Your task to perform on an android device: Search for vegetarian restaurants on Maps Image 0: 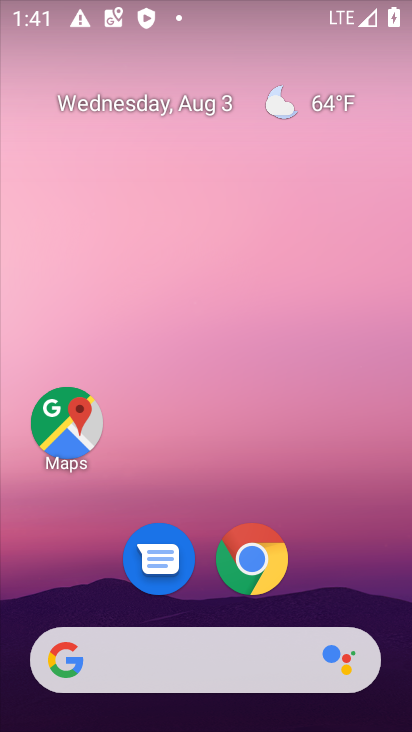
Step 0: drag from (202, 510) to (198, 20)
Your task to perform on an android device: Search for vegetarian restaurants on Maps Image 1: 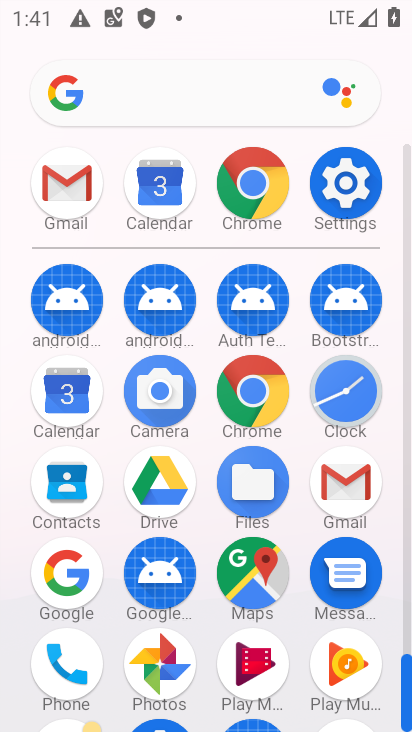
Step 1: click (250, 579)
Your task to perform on an android device: Search for vegetarian restaurants on Maps Image 2: 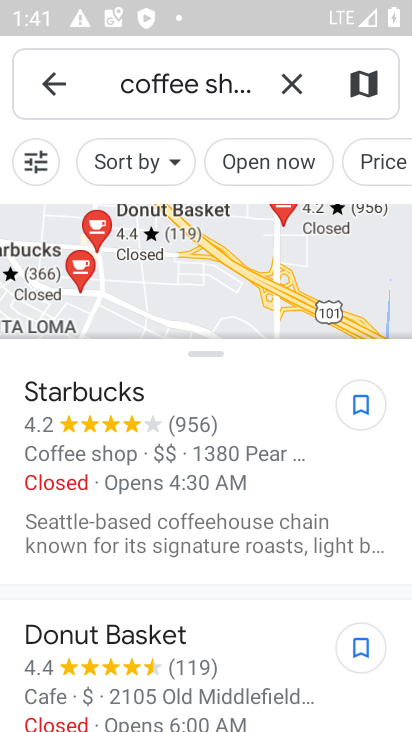
Step 2: click (287, 83)
Your task to perform on an android device: Search for vegetarian restaurants on Maps Image 3: 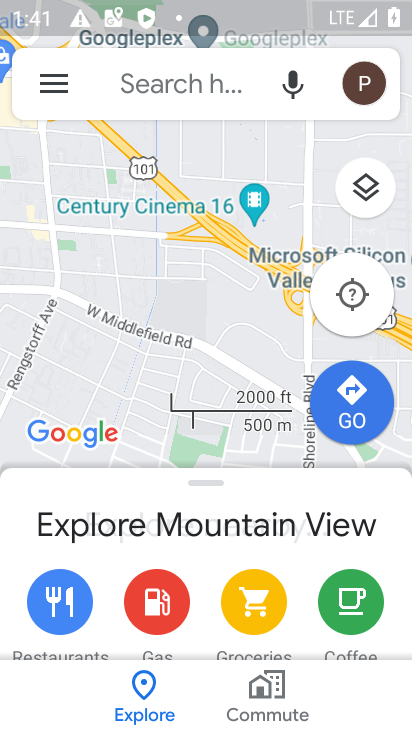
Step 3: click (171, 94)
Your task to perform on an android device: Search for vegetarian restaurants on Maps Image 4: 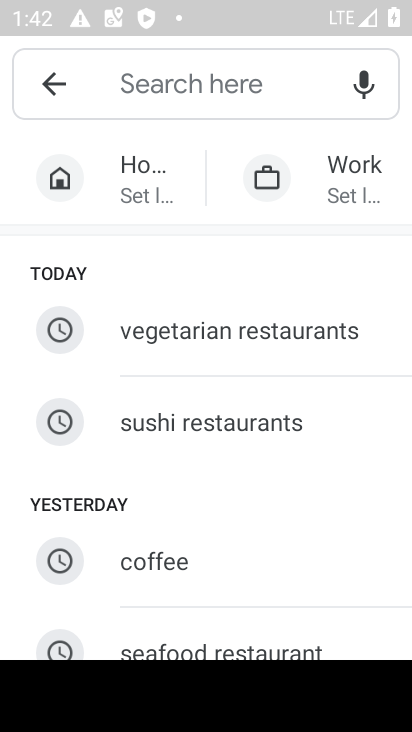
Step 4: type "vegetarian restaurants"
Your task to perform on an android device: Search for vegetarian restaurants on Maps Image 5: 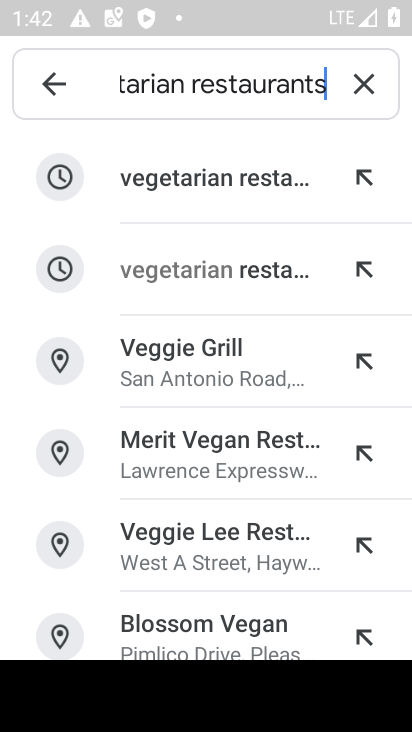
Step 5: click (203, 173)
Your task to perform on an android device: Search for vegetarian restaurants on Maps Image 6: 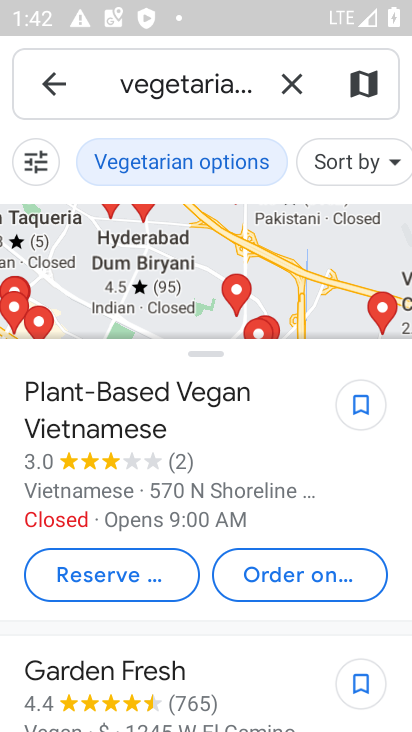
Step 6: task complete